Your task to perform on an android device: Open Chrome and go to settings Image 0: 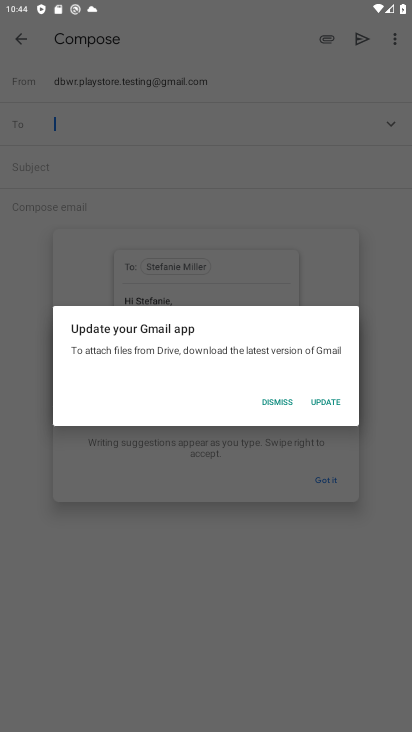
Step 0: press back button
Your task to perform on an android device: Open Chrome and go to settings Image 1: 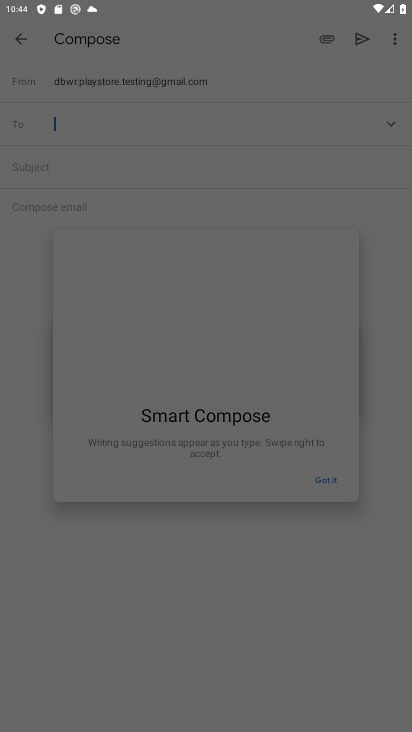
Step 1: press home button
Your task to perform on an android device: Open Chrome and go to settings Image 2: 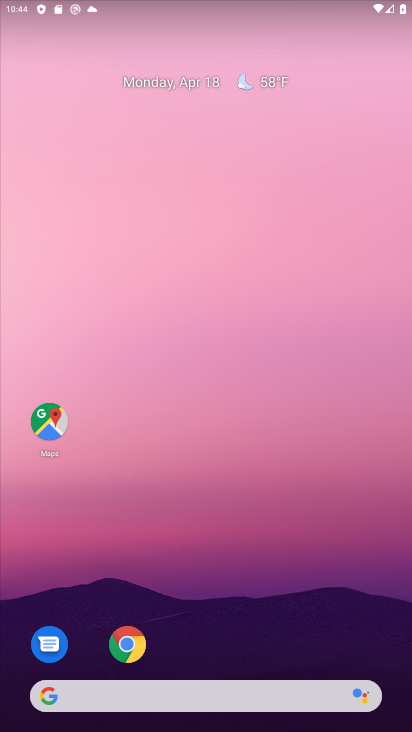
Step 2: click (123, 642)
Your task to perform on an android device: Open Chrome and go to settings Image 3: 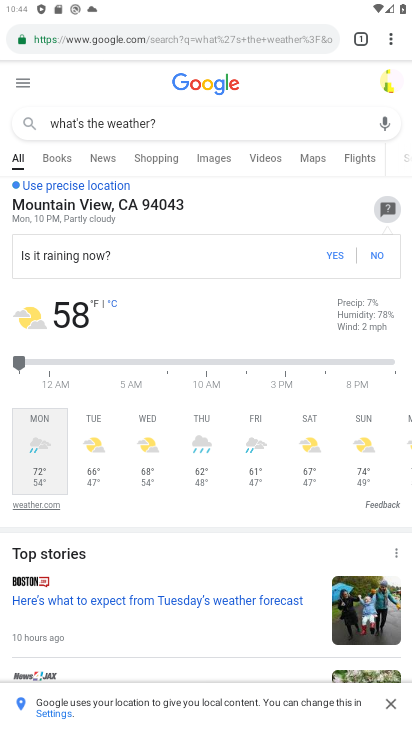
Step 3: click (389, 36)
Your task to perform on an android device: Open Chrome and go to settings Image 4: 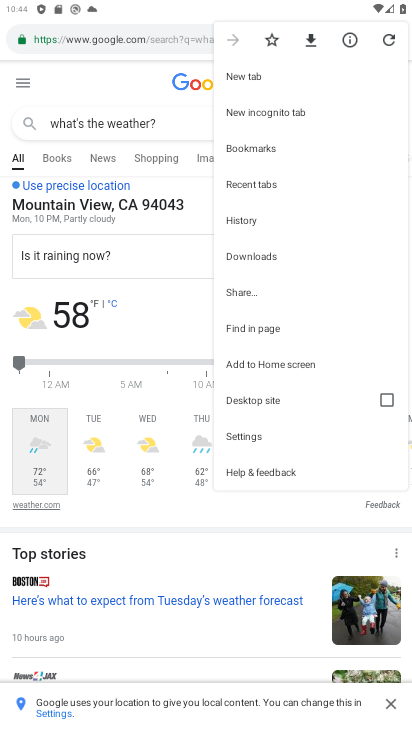
Step 4: click (253, 438)
Your task to perform on an android device: Open Chrome and go to settings Image 5: 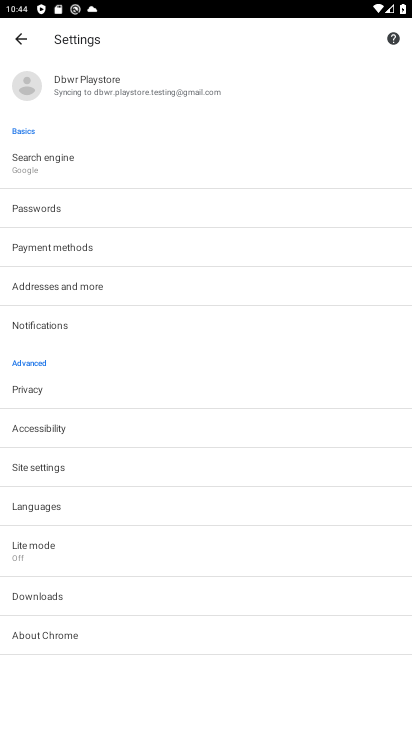
Step 5: task complete